Your task to perform on an android device: open device folders in google photos Image 0: 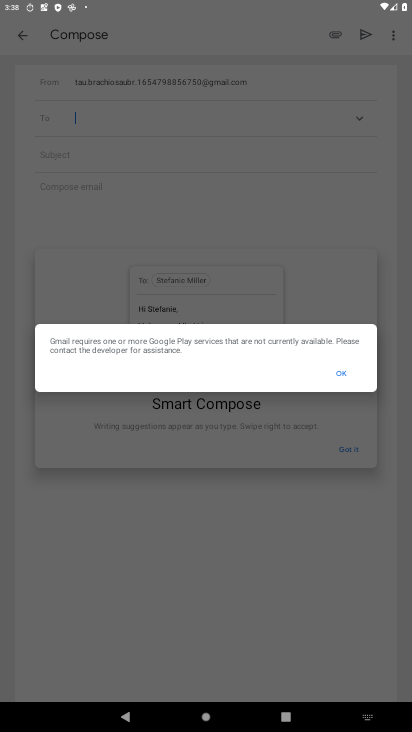
Step 0: press home button
Your task to perform on an android device: open device folders in google photos Image 1: 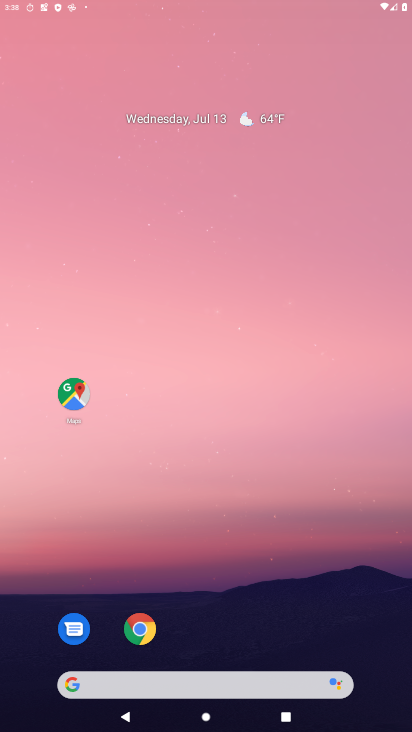
Step 1: drag from (299, 707) to (335, 60)
Your task to perform on an android device: open device folders in google photos Image 2: 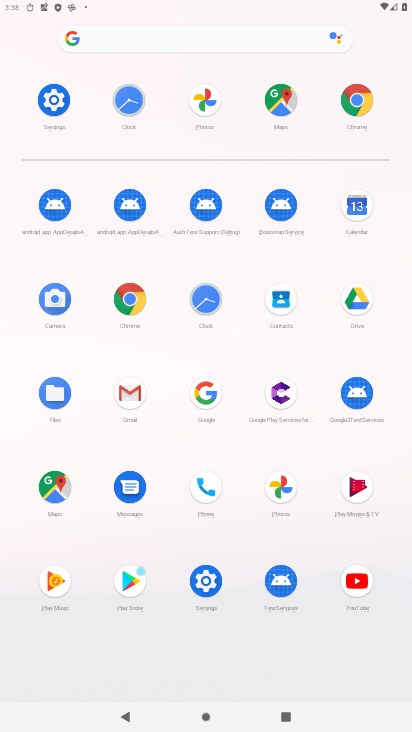
Step 2: click (278, 484)
Your task to perform on an android device: open device folders in google photos Image 3: 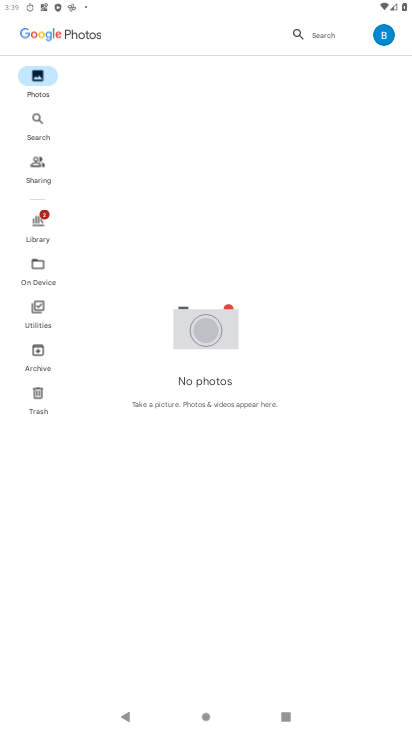
Step 3: click (43, 274)
Your task to perform on an android device: open device folders in google photos Image 4: 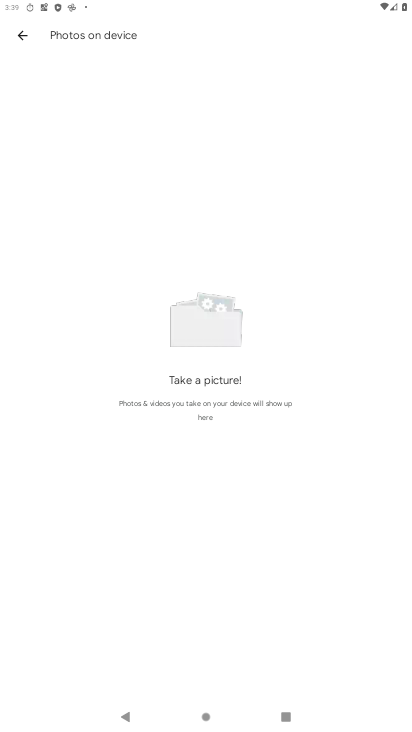
Step 4: task complete